Your task to perform on an android device: Go to location settings Image 0: 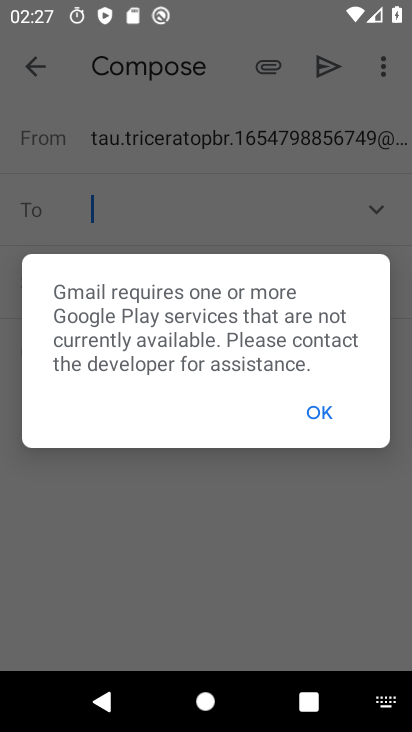
Step 0: press home button
Your task to perform on an android device: Go to location settings Image 1: 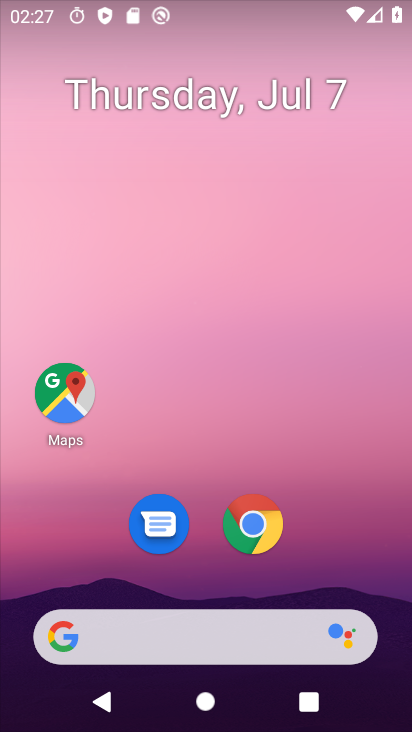
Step 1: drag from (218, 439) to (251, 0)
Your task to perform on an android device: Go to location settings Image 2: 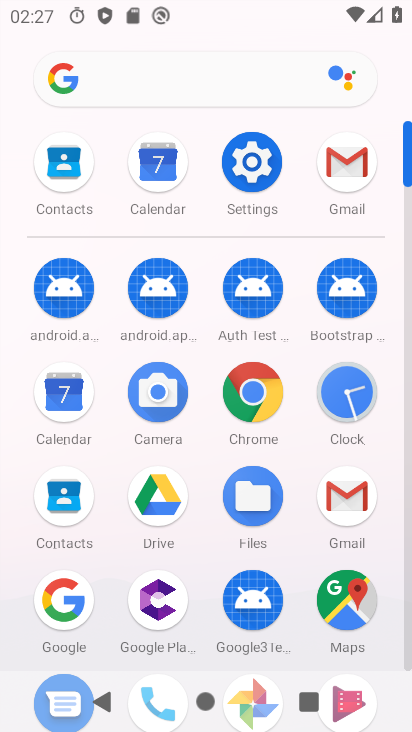
Step 2: click (257, 166)
Your task to perform on an android device: Go to location settings Image 3: 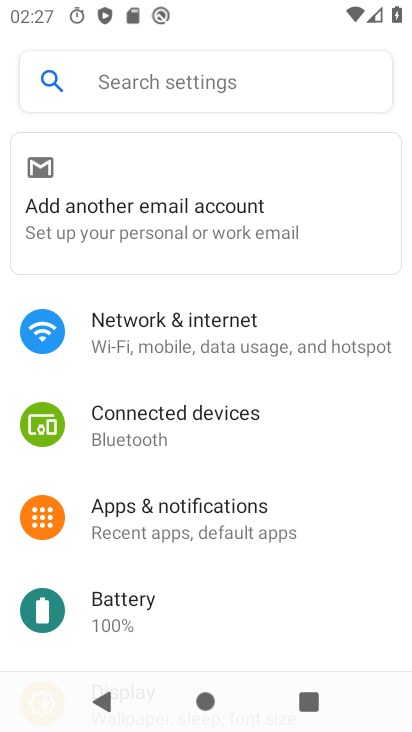
Step 3: drag from (245, 591) to (251, 111)
Your task to perform on an android device: Go to location settings Image 4: 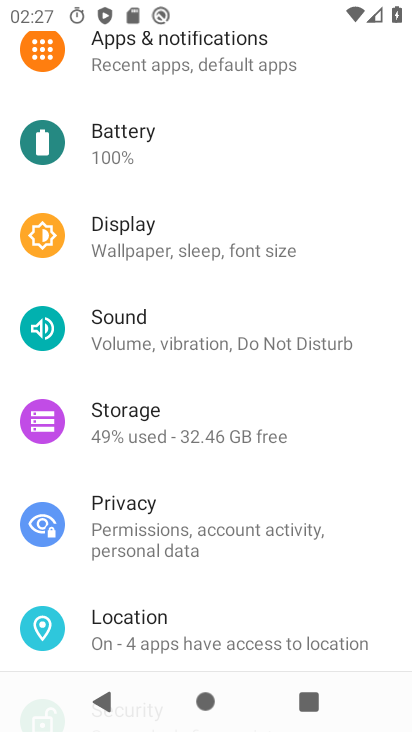
Step 4: click (159, 628)
Your task to perform on an android device: Go to location settings Image 5: 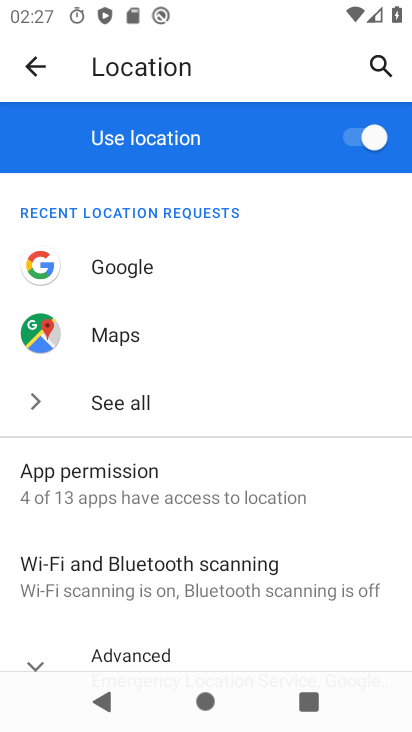
Step 5: task complete